Your task to perform on an android device: delete browsing data in the chrome app Image 0: 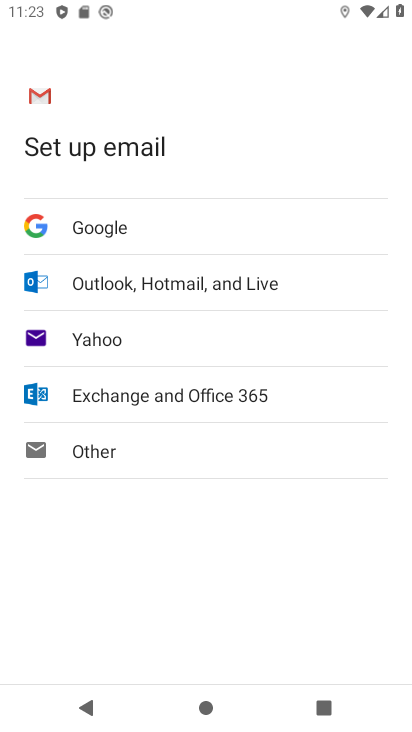
Step 0: press home button
Your task to perform on an android device: delete browsing data in the chrome app Image 1: 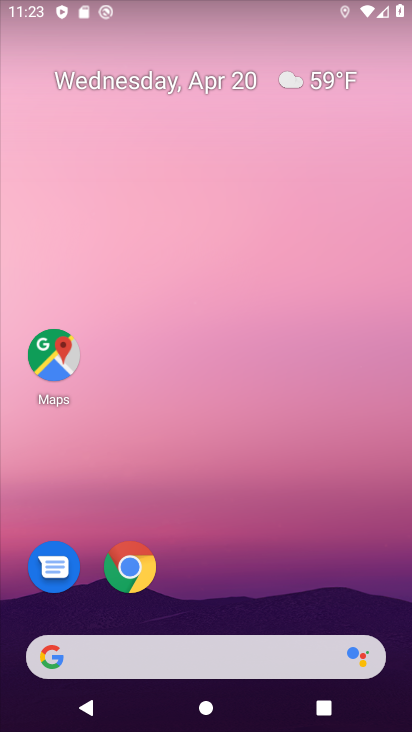
Step 1: click (123, 563)
Your task to perform on an android device: delete browsing data in the chrome app Image 2: 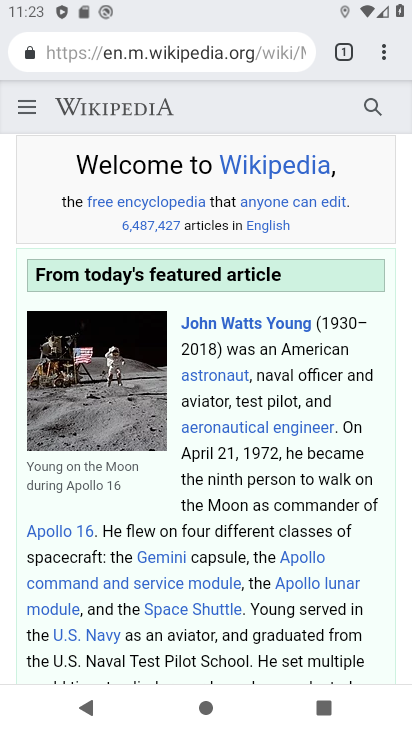
Step 2: click (380, 49)
Your task to perform on an android device: delete browsing data in the chrome app Image 3: 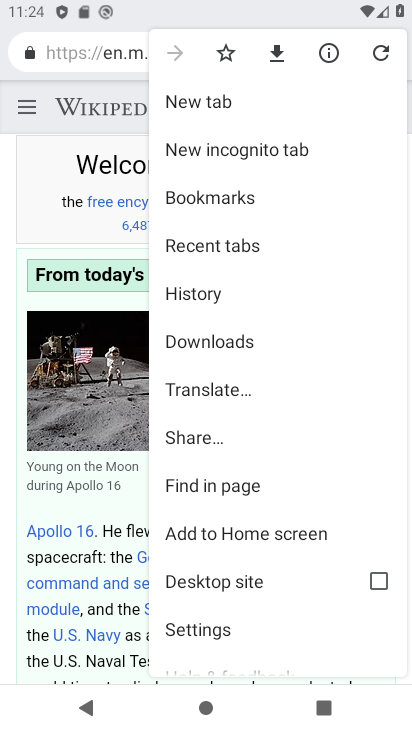
Step 3: click (199, 294)
Your task to perform on an android device: delete browsing data in the chrome app Image 4: 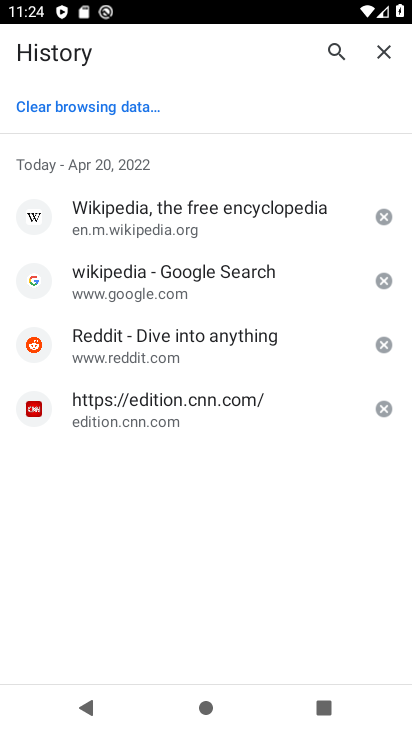
Step 4: click (67, 106)
Your task to perform on an android device: delete browsing data in the chrome app Image 5: 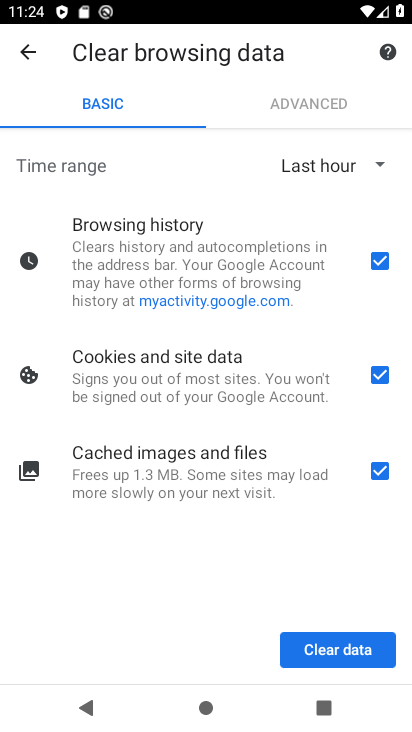
Step 5: drag from (227, 401) to (226, 483)
Your task to perform on an android device: delete browsing data in the chrome app Image 6: 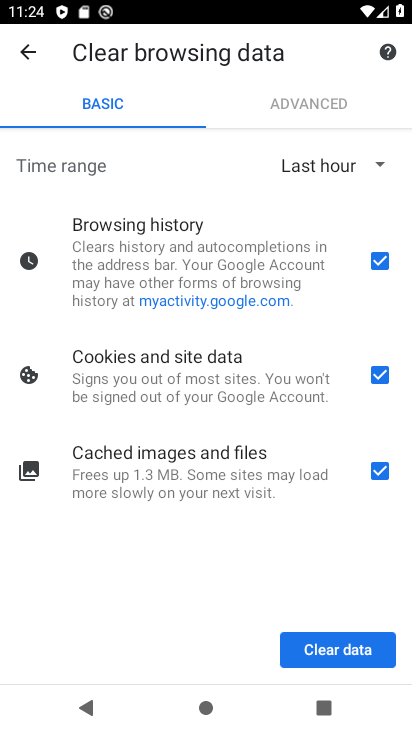
Step 6: click (226, 473)
Your task to perform on an android device: delete browsing data in the chrome app Image 7: 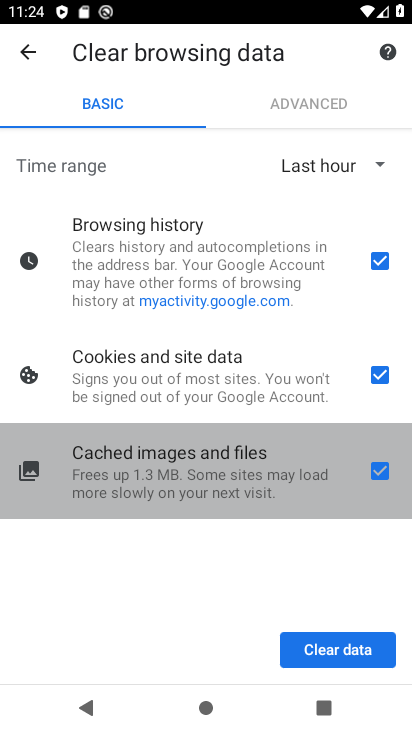
Step 7: click (228, 408)
Your task to perform on an android device: delete browsing data in the chrome app Image 8: 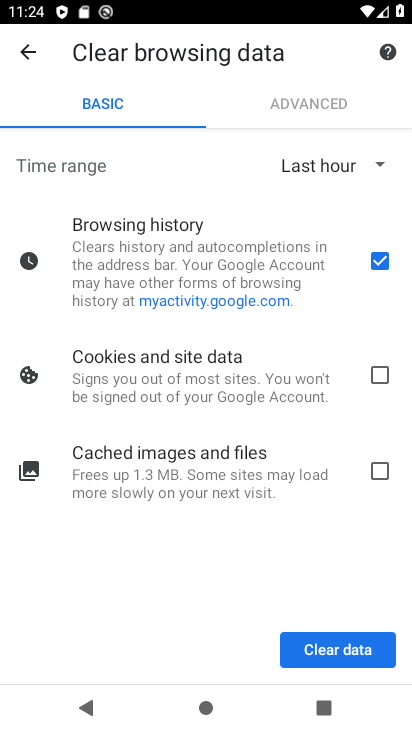
Step 8: click (344, 646)
Your task to perform on an android device: delete browsing data in the chrome app Image 9: 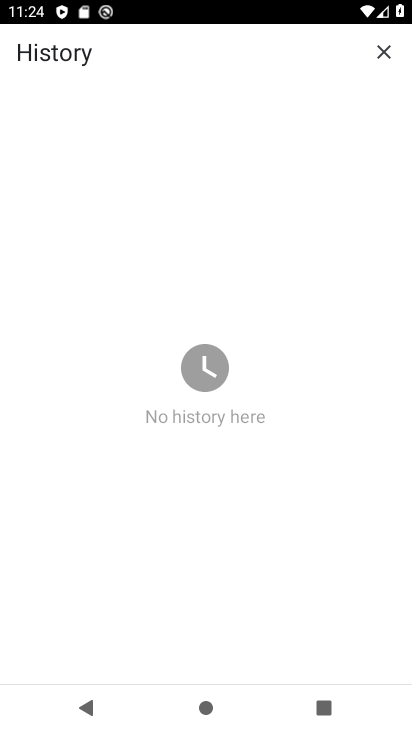
Step 9: task complete